Your task to perform on an android device: open a bookmark in the chrome app Image 0: 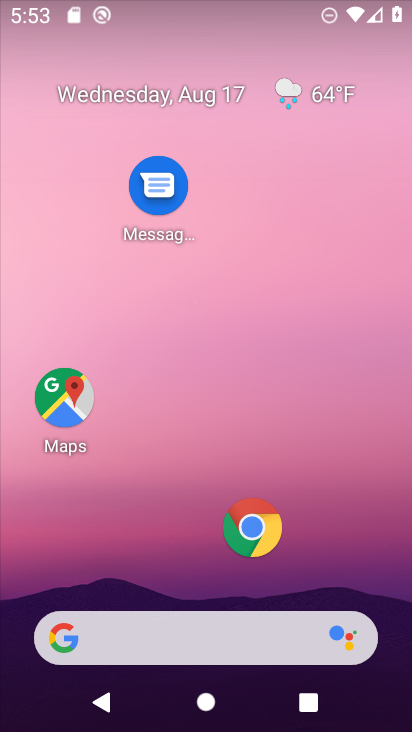
Step 0: click (248, 539)
Your task to perform on an android device: open a bookmark in the chrome app Image 1: 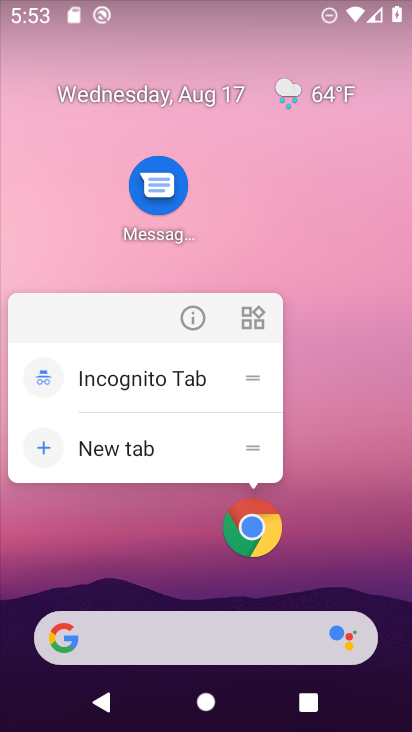
Step 1: click (248, 537)
Your task to perform on an android device: open a bookmark in the chrome app Image 2: 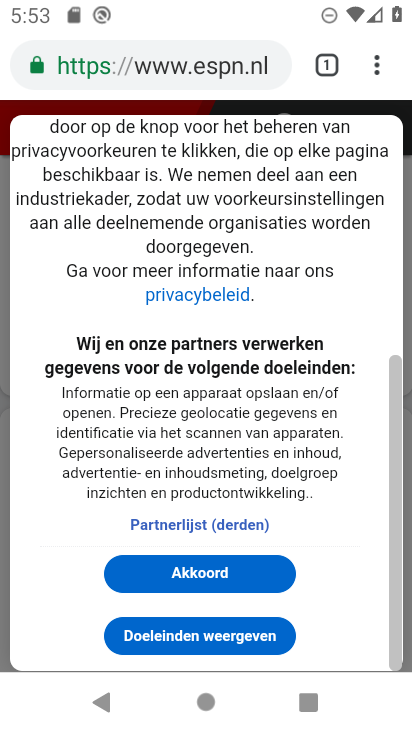
Step 2: click (376, 65)
Your task to perform on an android device: open a bookmark in the chrome app Image 3: 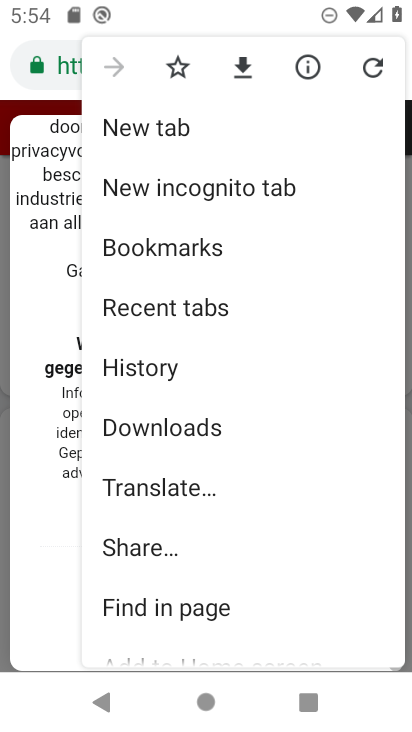
Step 3: click (170, 242)
Your task to perform on an android device: open a bookmark in the chrome app Image 4: 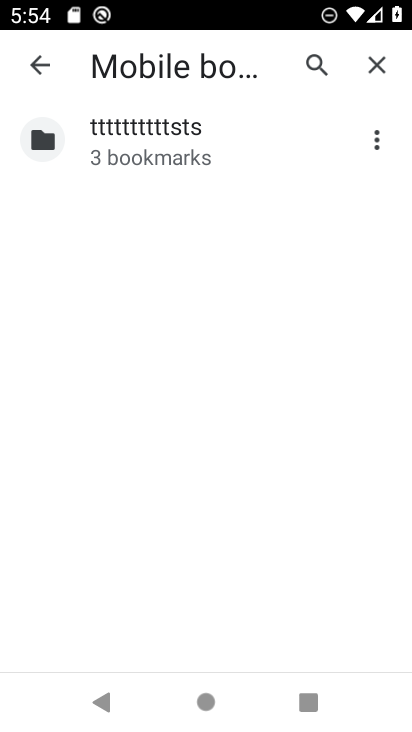
Step 4: task complete